Your task to perform on an android device: turn off sleep mode Image 0: 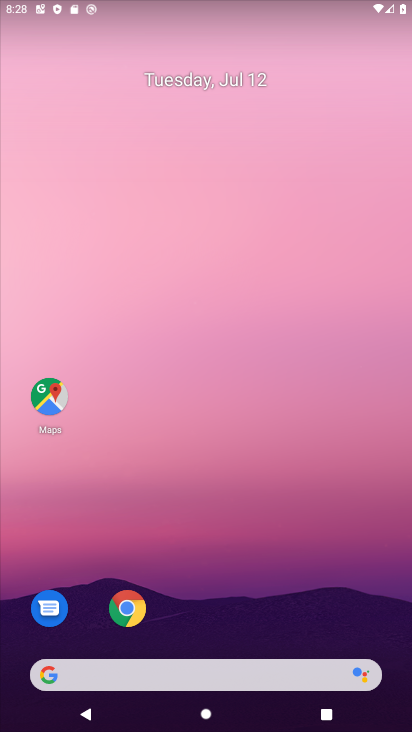
Step 0: drag from (182, 9) to (288, 487)
Your task to perform on an android device: turn off sleep mode Image 1: 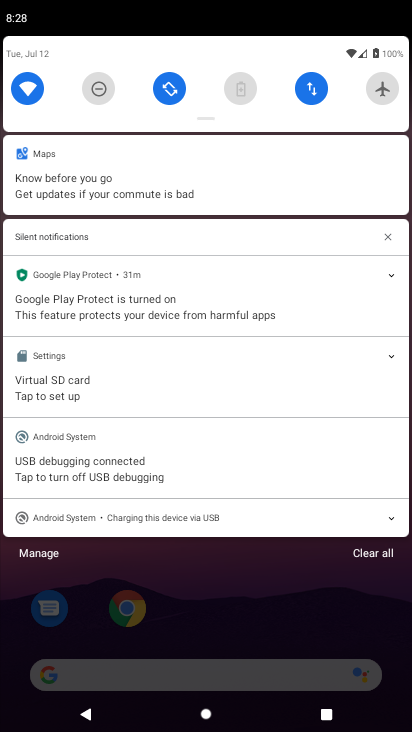
Step 1: drag from (344, 79) to (319, 490)
Your task to perform on an android device: turn off sleep mode Image 2: 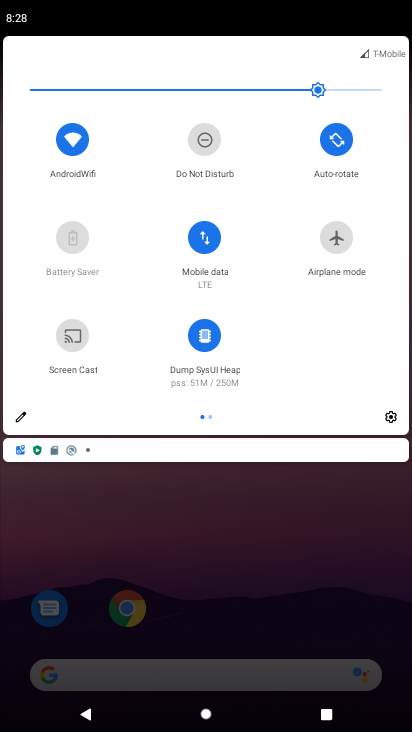
Step 2: click (387, 419)
Your task to perform on an android device: turn off sleep mode Image 3: 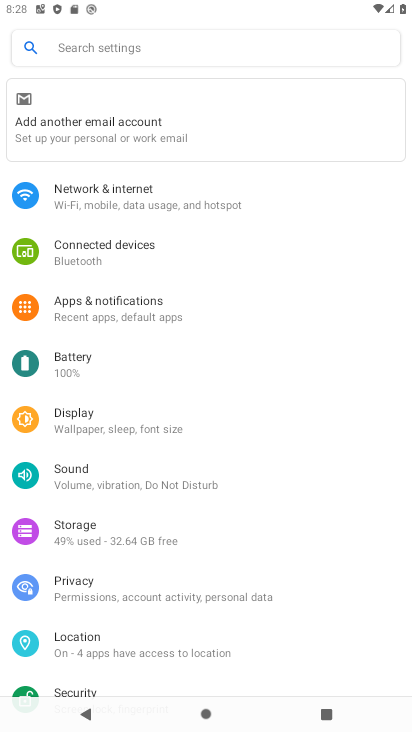
Step 3: task complete